Your task to perform on an android device: What's the news in Trinidad and Tobago? Image 0: 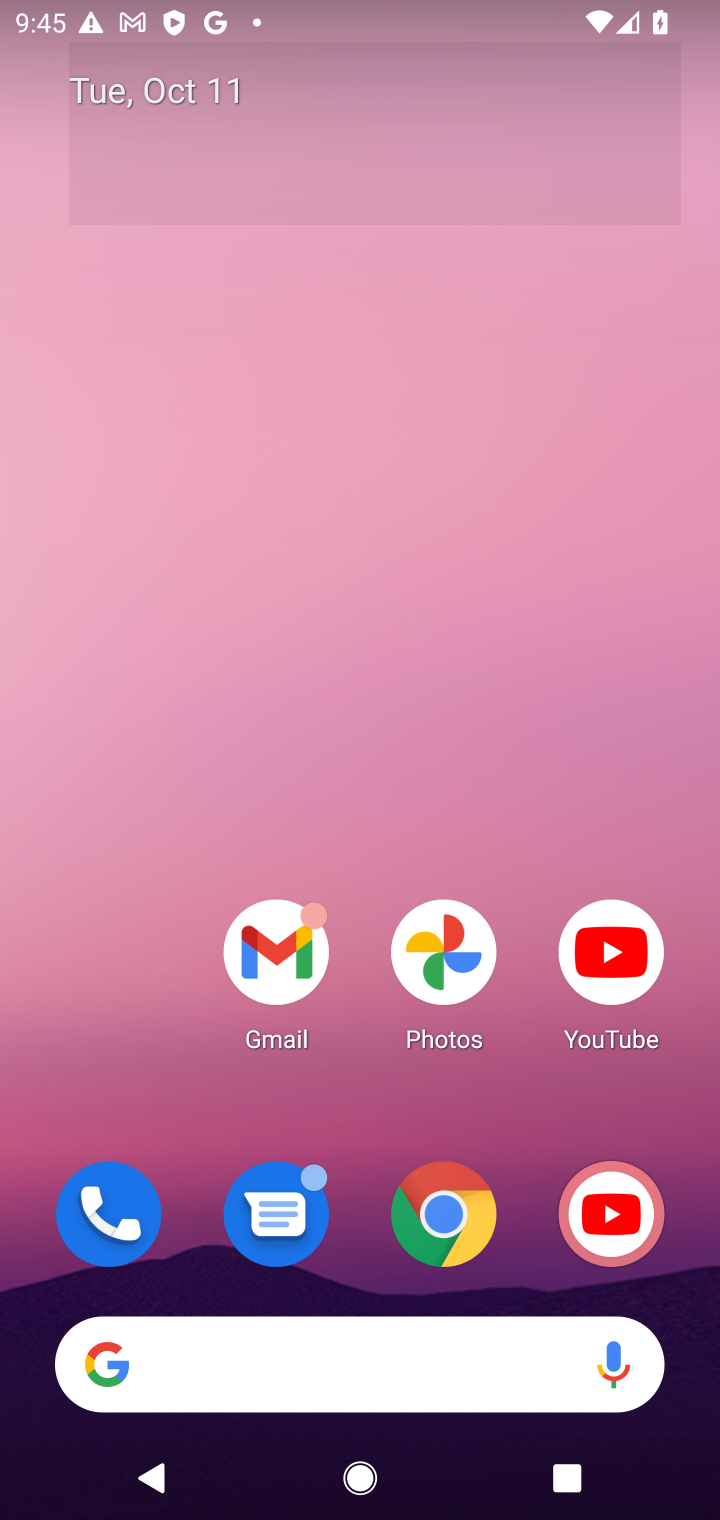
Step 0: drag from (388, 1035) to (156, 6)
Your task to perform on an android device: What's the news in Trinidad and Tobago? Image 1: 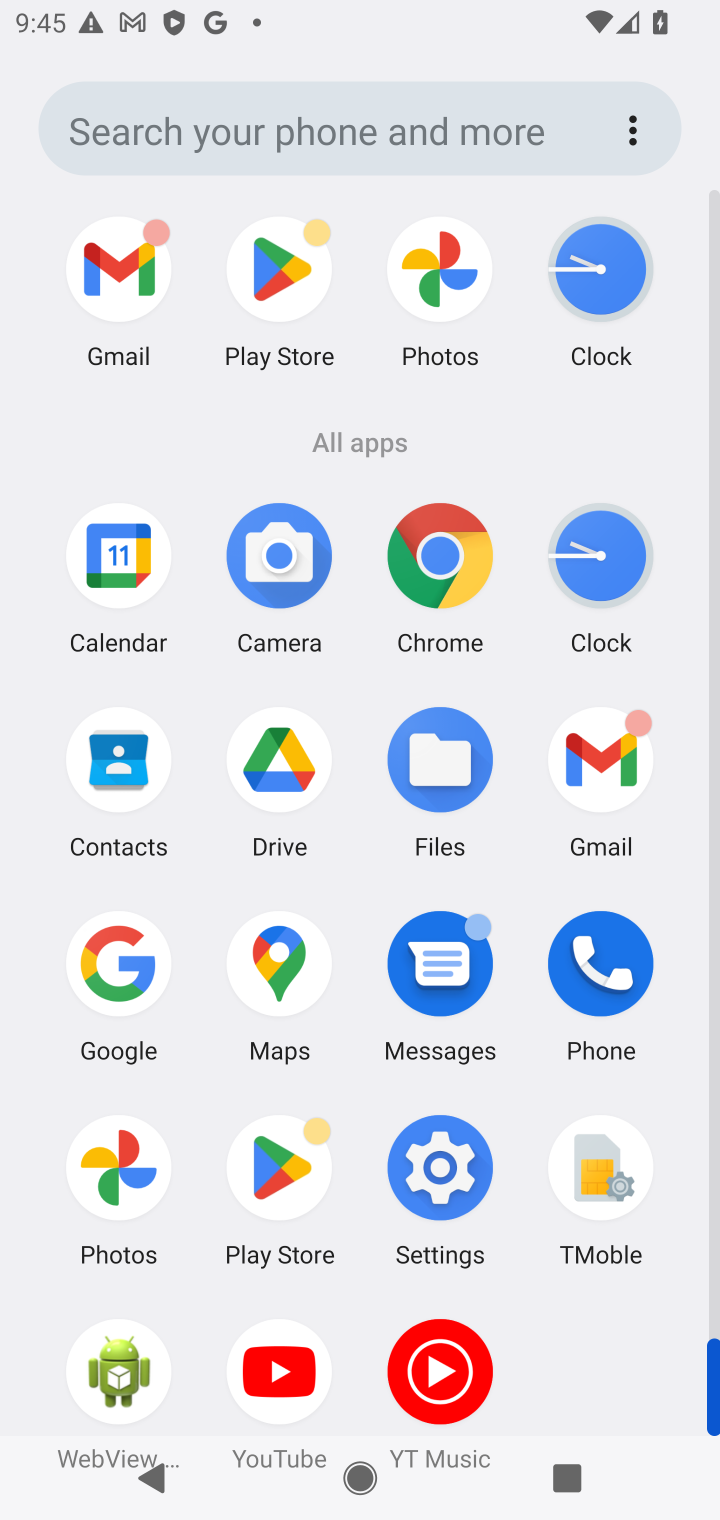
Step 1: click (446, 547)
Your task to perform on an android device: What's the news in Trinidad and Tobago? Image 2: 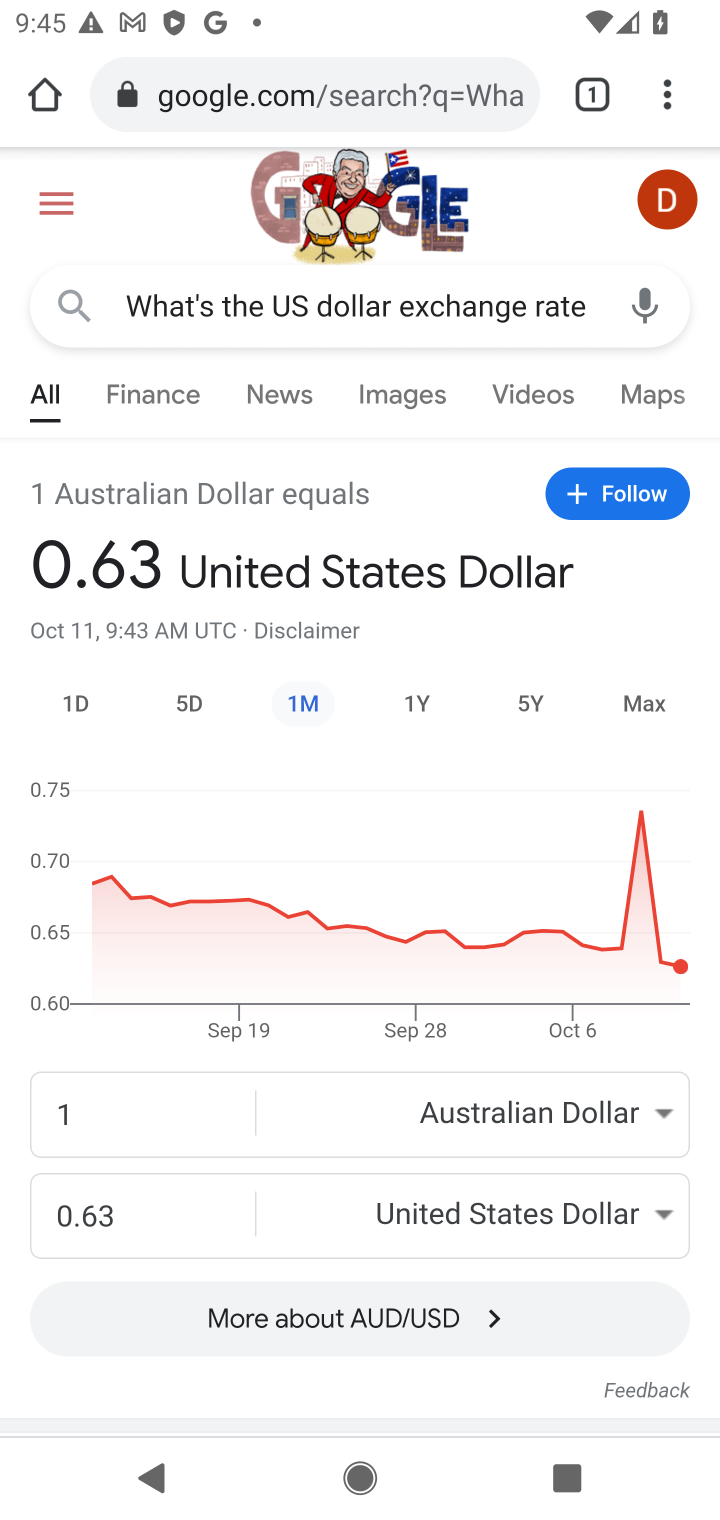
Step 2: click (366, 105)
Your task to perform on an android device: What's the news in Trinidad and Tobago? Image 3: 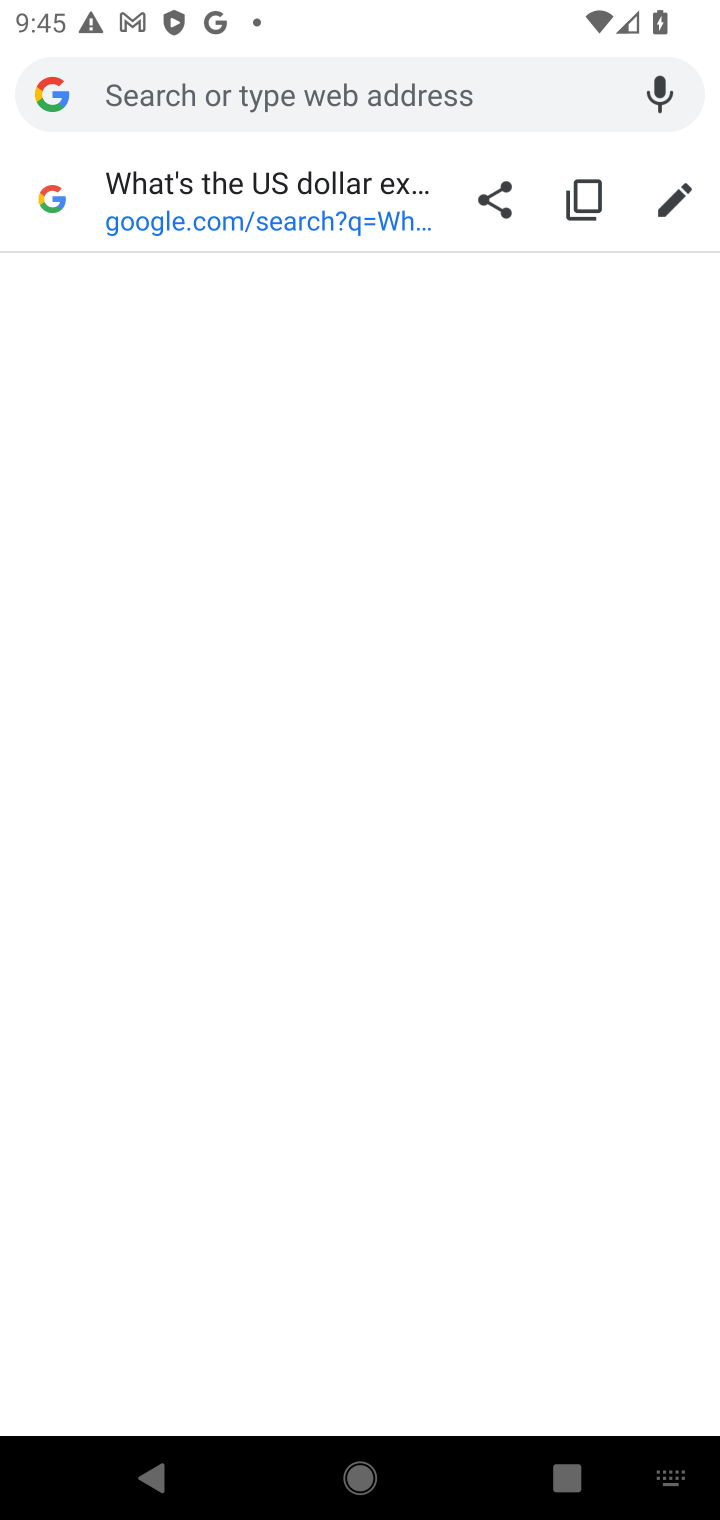
Step 3: type "What's the news in Trinidad and Tobago ?"
Your task to perform on an android device: What's the news in Trinidad and Tobago? Image 4: 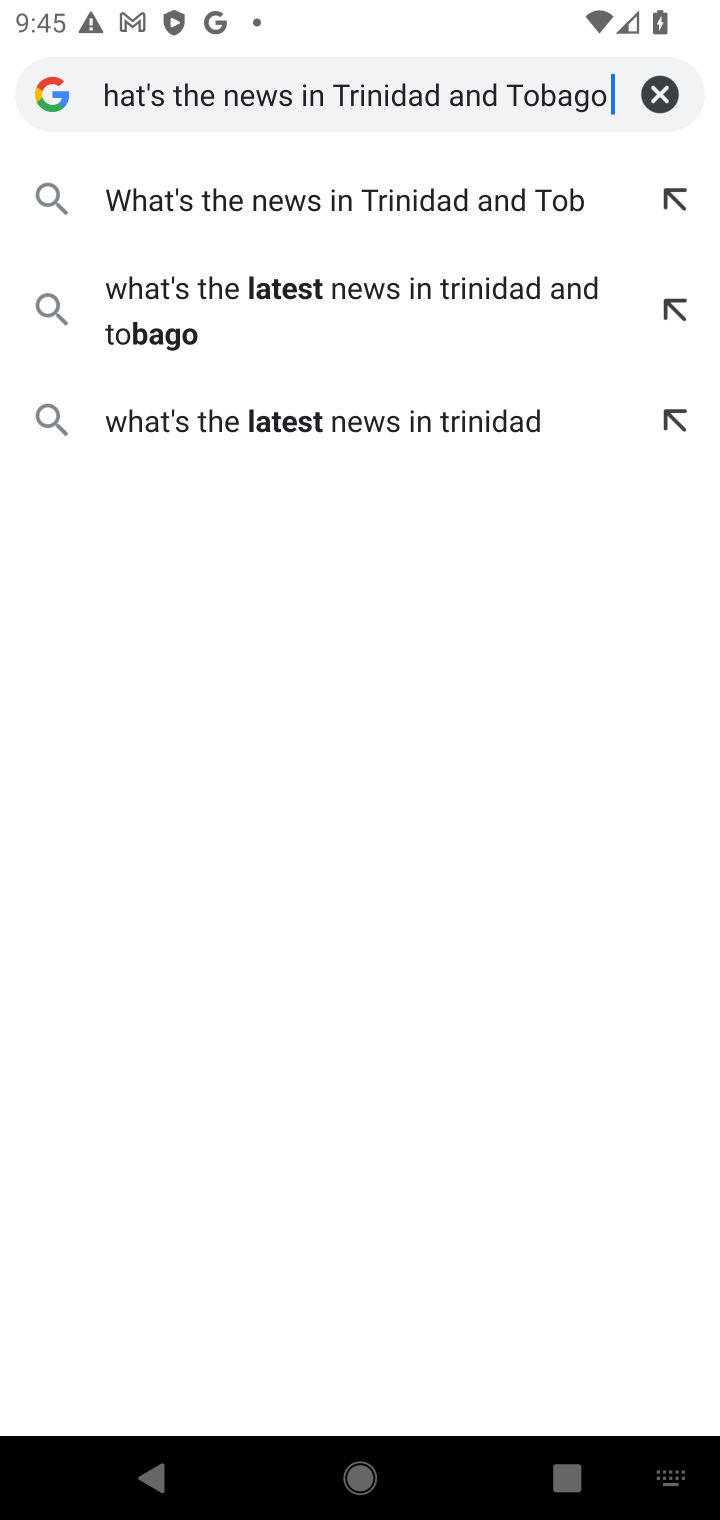
Step 4: press enter
Your task to perform on an android device: What's the news in Trinidad and Tobago? Image 5: 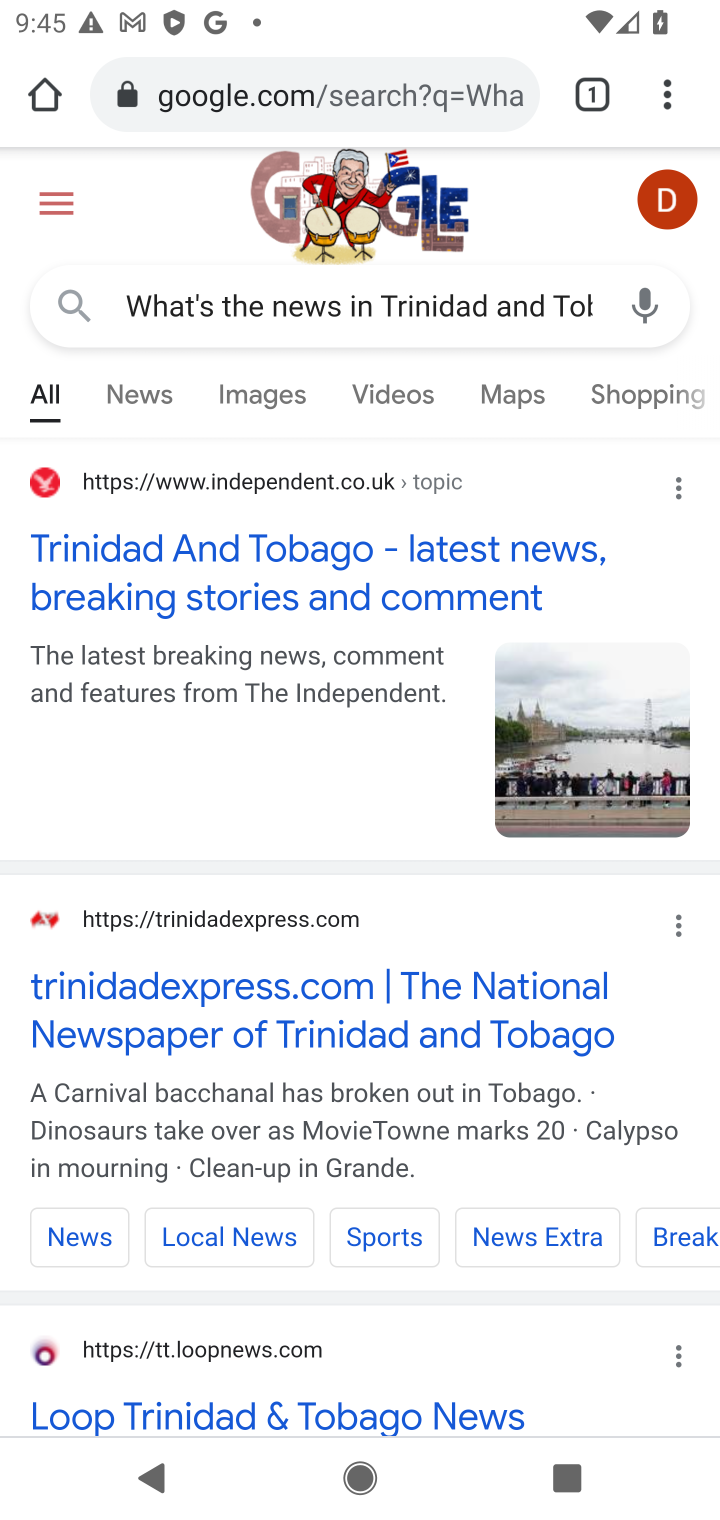
Step 5: click (380, 585)
Your task to perform on an android device: What's the news in Trinidad and Tobago? Image 6: 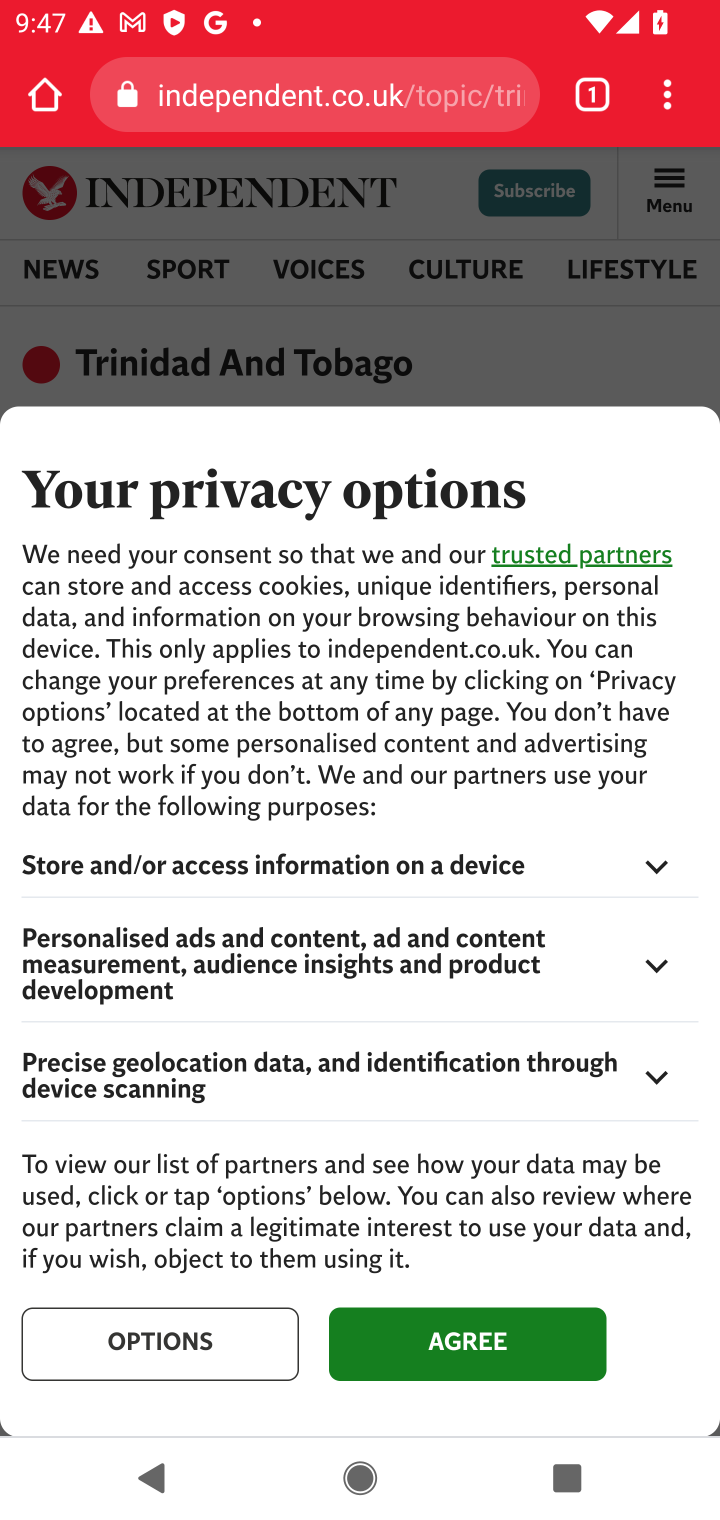
Step 6: task complete